Your task to perform on an android device: Turn on the flashlight Image 0: 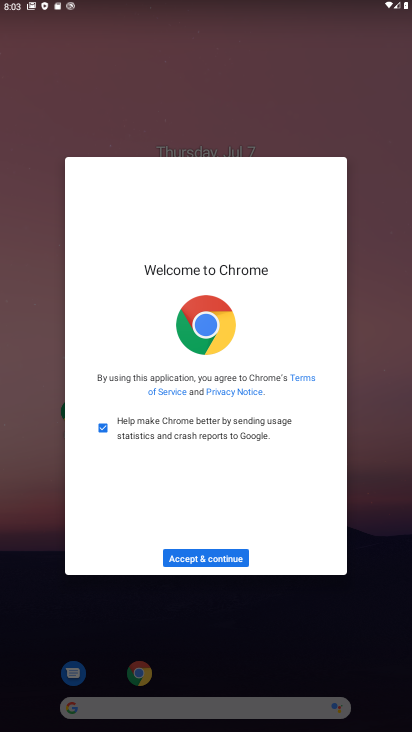
Step 0: press home button
Your task to perform on an android device: Turn on the flashlight Image 1: 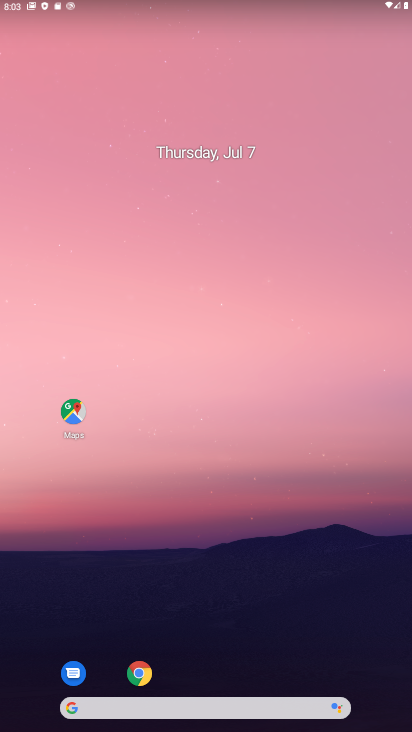
Step 1: drag from (382, 663) to (251, 141)
Your task to perform on an android device: Turn on the flashlight Image 2: 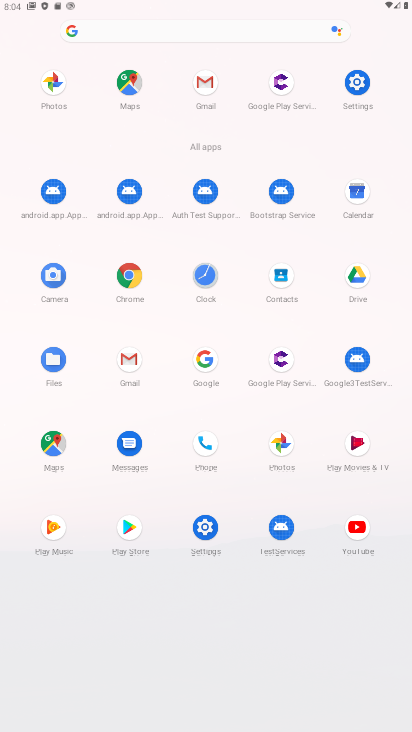
Step 2: click (350, 89)
Your task to perform on an android device: Turn on the flashlight Image 3: 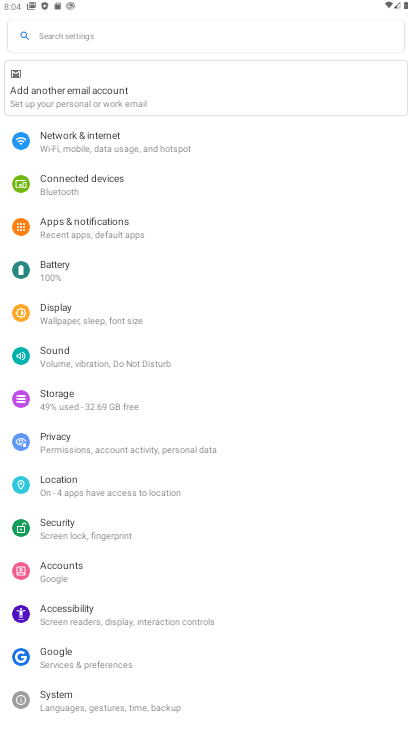
Step 3: click (64, 308)
Your task to perform on an android device: Turn on the flashlight Image 4: 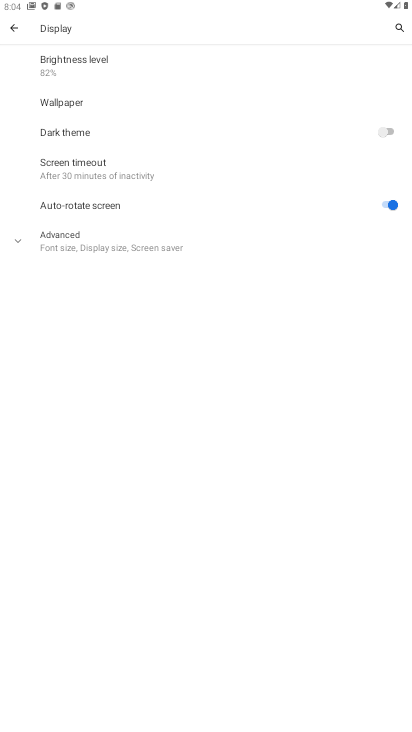
Step 4: task complete